Your task to perform on an android device: turn on the 24-hour format for clock Image 0: 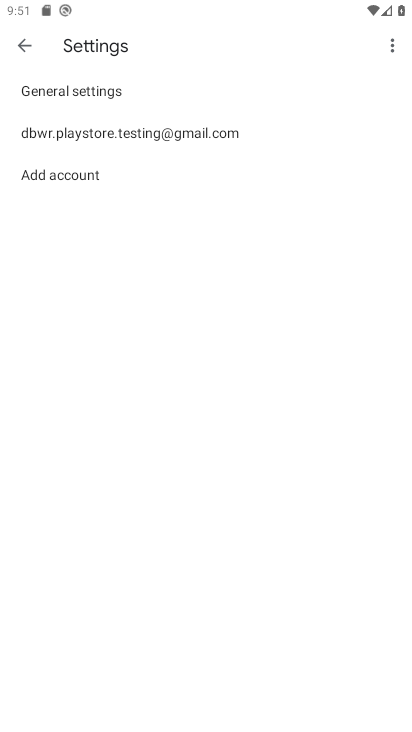
Step 0: press home button
Your task to perform on an android device: turn on the 24-hour format for clock Image 1: 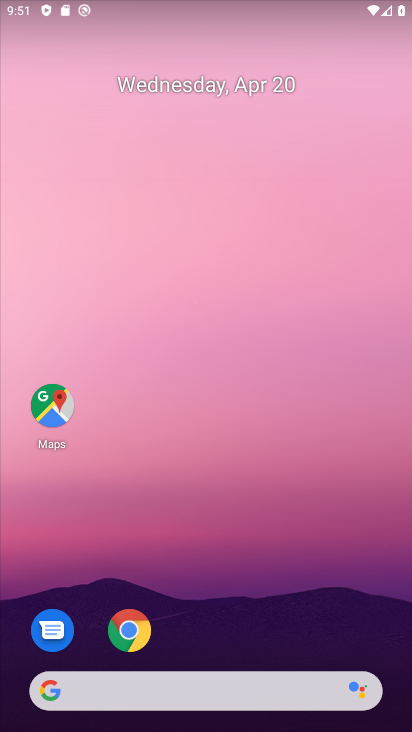
Step 1: click (332, 127)
Your task to perform on an android device: turn on the 24-hour format for clock Image 2: 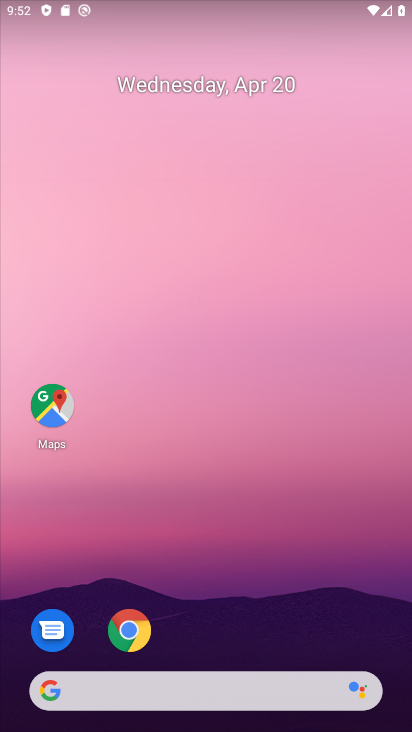
Step 2: drag from (229, 656) to (282, 188)
Your task to perform on an android device: turn on the 24-hour format for clock Image 3: 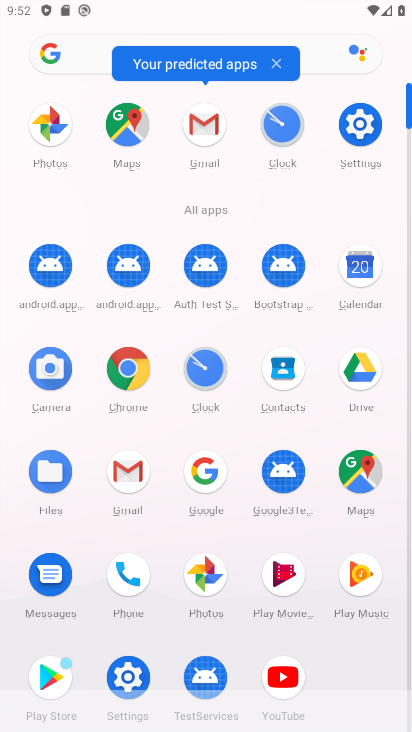
Step 3: click (282, 119)
Your task to perform on an android device: turn on the 24-hour format for clock Image 4: 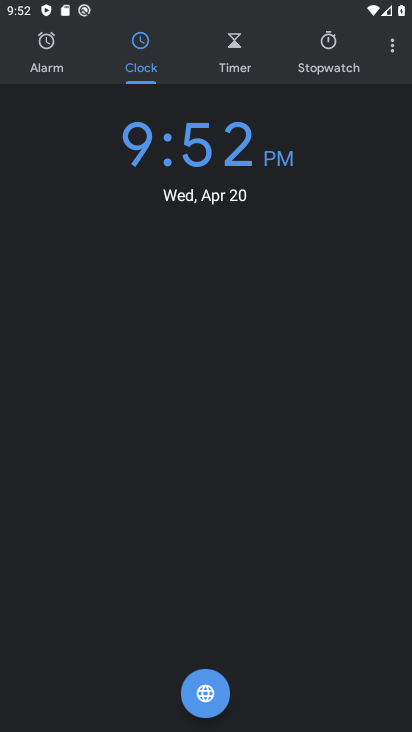
Step 4: click (395, 44)
Your task to perform on an android device: turn on the 24-hour format for clock Image 5: 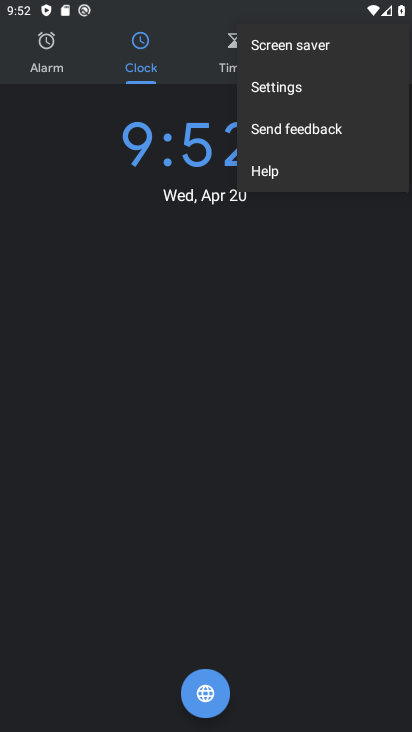
Step 5: click (330, 78)
Your task to perform on an android device: turn on the 24-hour format for clock Image 6: 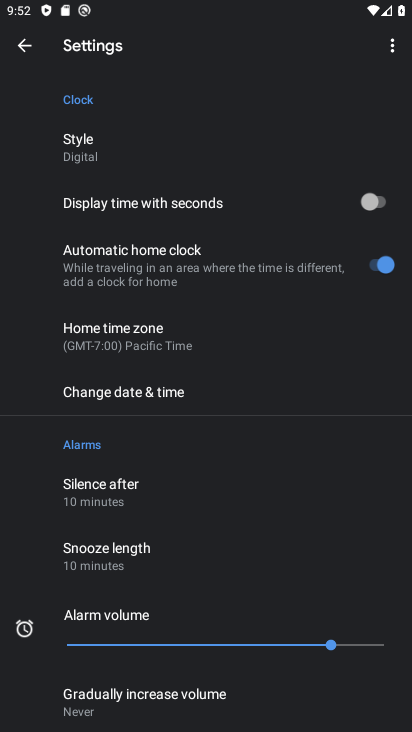
Step 6: drag from (183, 559) to (209, 311)
Your task to perform on an android device: turn on the 24-hour format for clock Image 7: 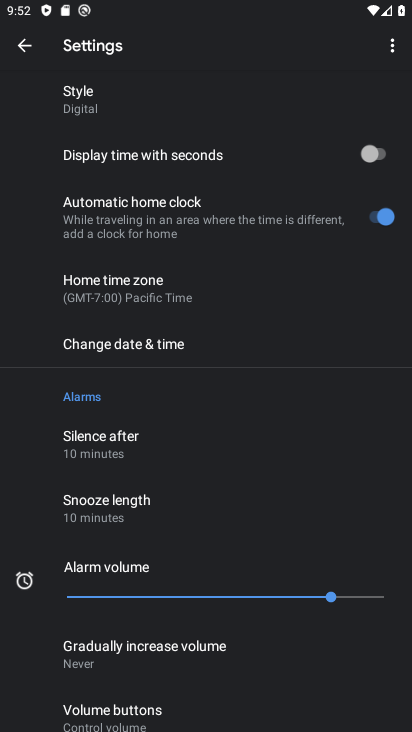
Step 7: click (171, 343)
Your task to perform on an android device: turn on the 24-hour format for clock Image 8: 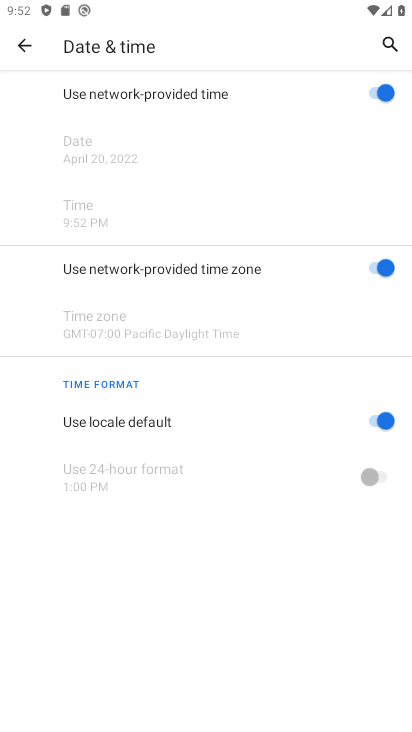
Step 8: click (379, 411)
Your task to perform on an android device: turn on the 24-hour format for clock Image 9: 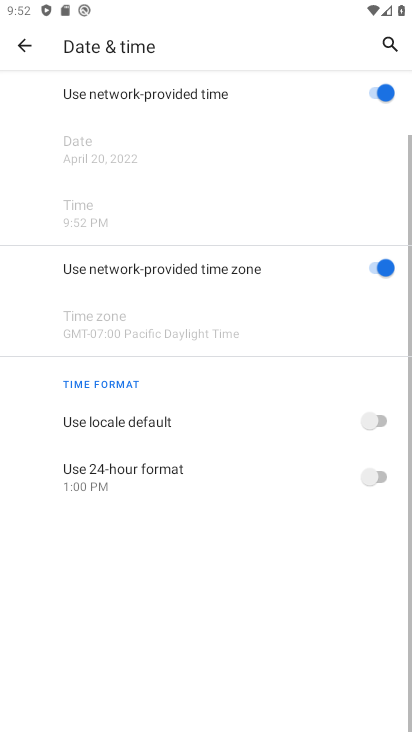
Step 9: click (372, 482)
Your task to perform on an android device: turn on the 24-hour format for clock Image 10: 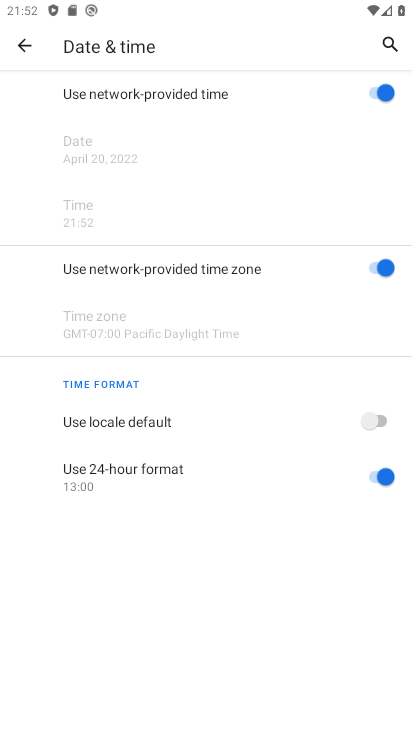
Step 10: task complete